Your task to perform on an android device: What's on my calendar tomorrow? Image 0: 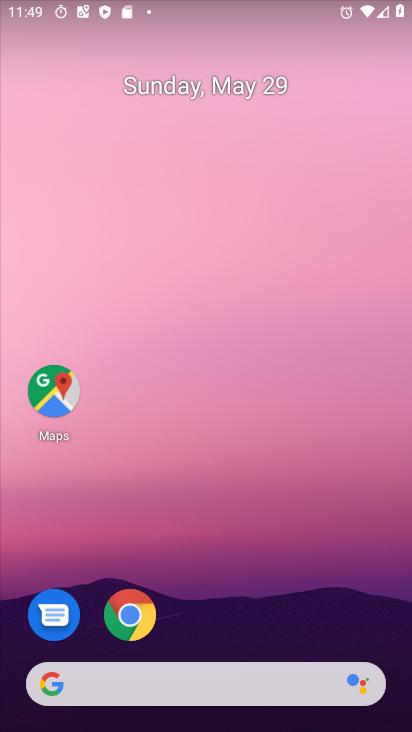
Step 0: drag from (257, 558) to (252, 53)
Your task to perform on an android device: What's on my calendar tomorrow? Image 1: 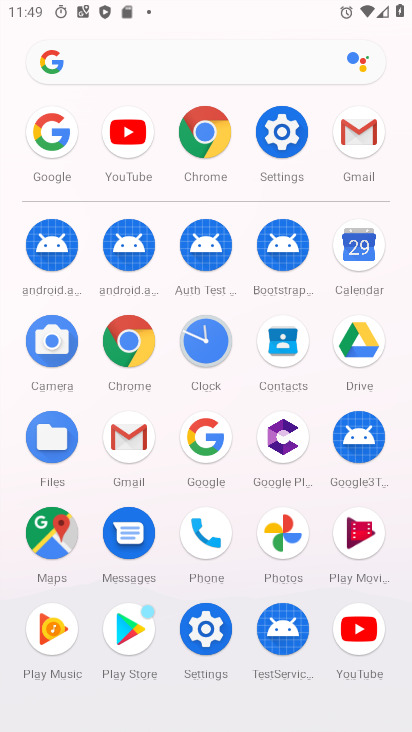
Step 1: click (351, 231)
Your task to perform on an android device: What's on my calendar tomorrow? Image 2: 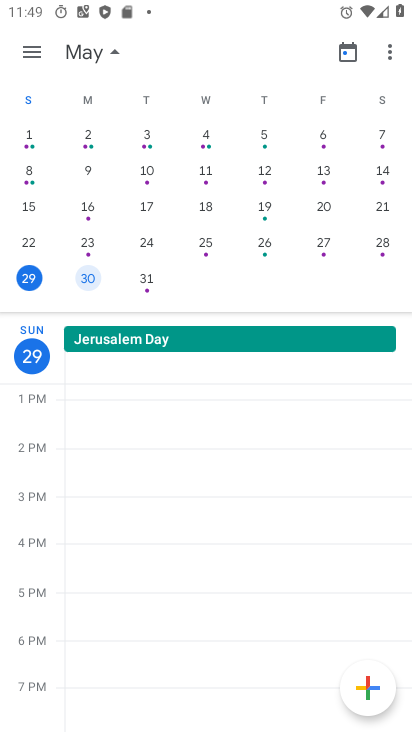
Step 2: click (119, 52)
Your task to perform on an android device: What's on my calendar tomorrow? Image 3: 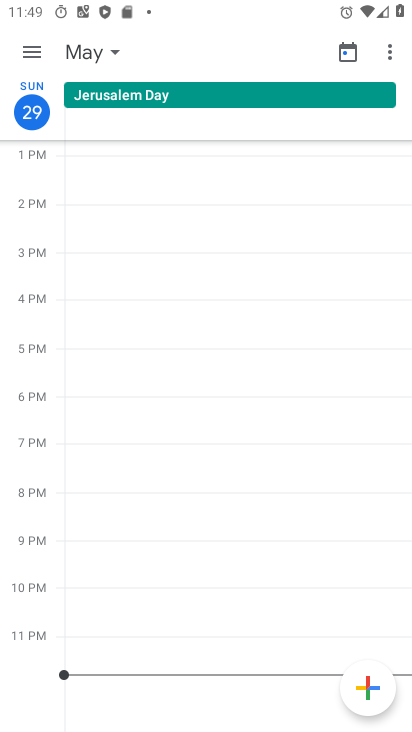
Step 3: click (119, 51)
Your task to perform on an android device: What's on my calendar tomorrow? Image 4: 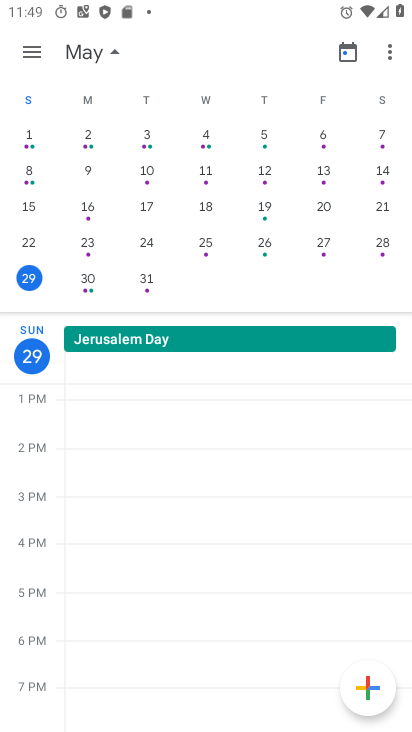
Step 4: click (93, 274)
Your task to perform on an android device: What's on my calendar tomorrow? Image 5: 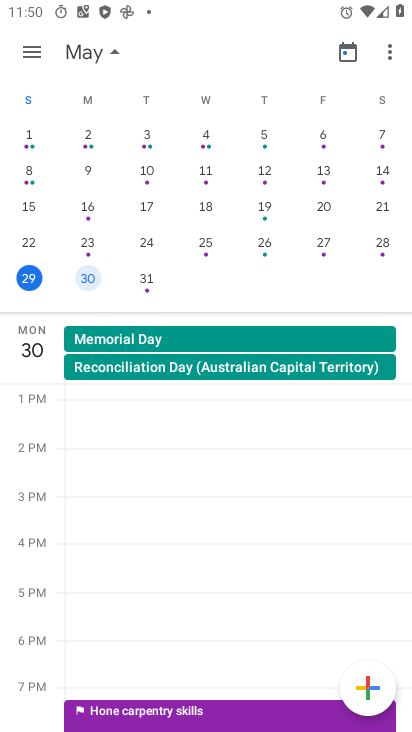
Step 5: task complete